Your task to perform on an android device: find photos in the google photos app Image 0: 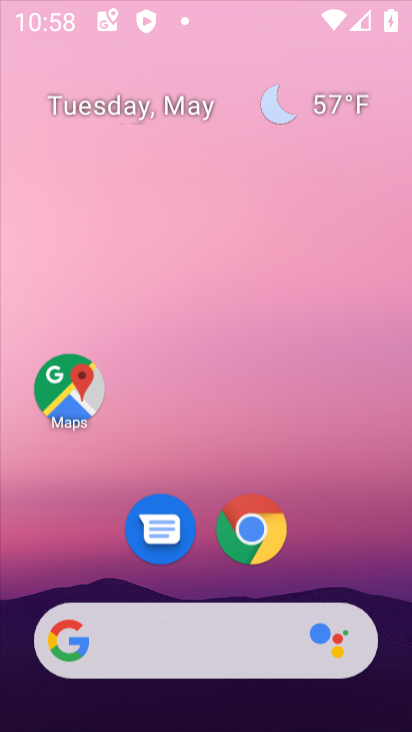
Step 0: drag from (163, 317) to (144, 217)
Your task to perform on an android device: find photos in the google photos app Image 1: 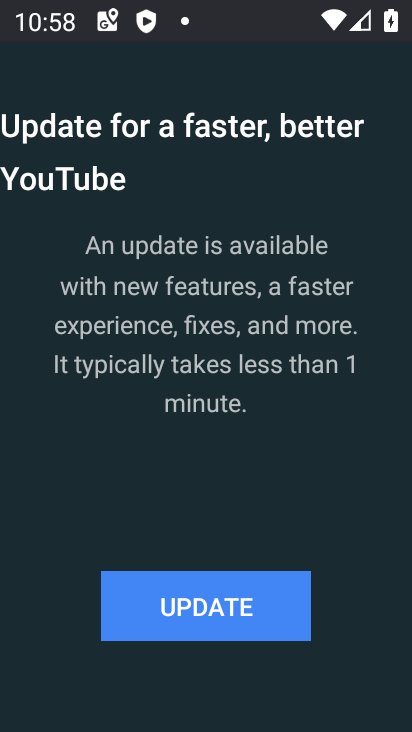
Step 1: press home button
Your task to perform on an android device: find photos in the google photos app Image 2: 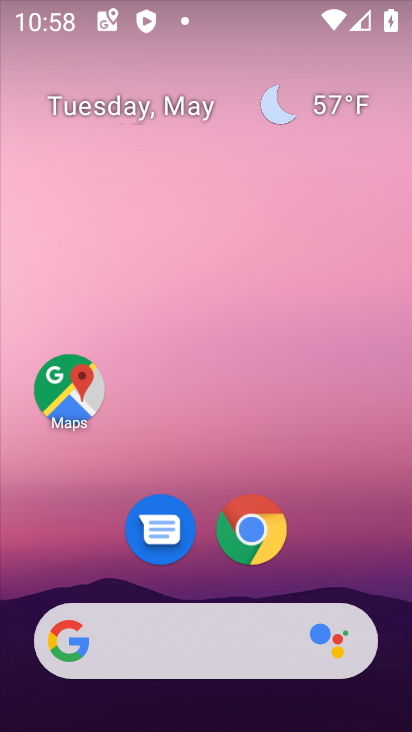
Step 2: drag from (199, 575) to (291, 13)
Your task to perform on an android device: find photos in the google photos app Image 3: 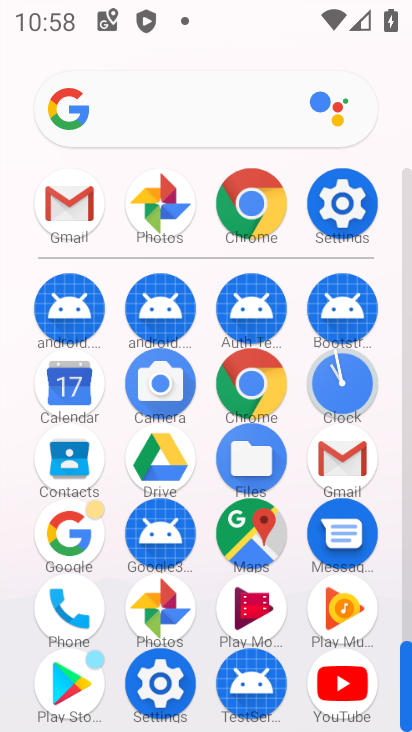
Step 3: click (152, 205)
Your task to perform on an android device: find photos in the google photos app Image 4: 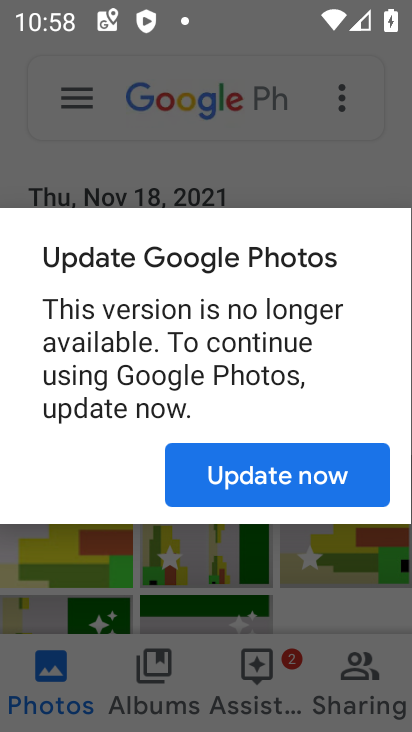
Step 4: click (325, 495)
Your task to perform on an android device: find photos in the google photos app Image 5: 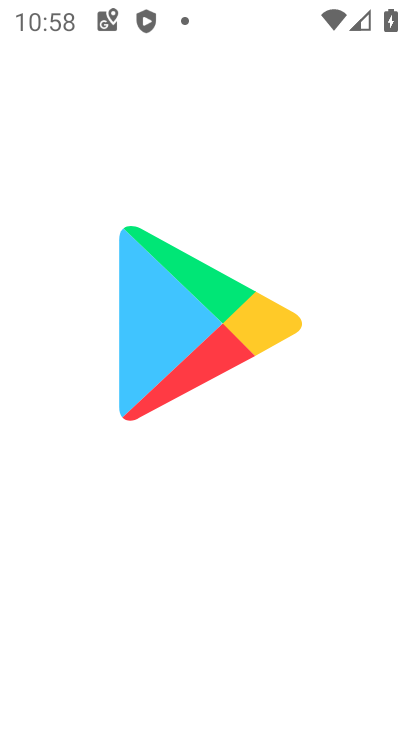
Step 5: task complete